Your task to perform on an android device: change the clock display to digital Image 0: 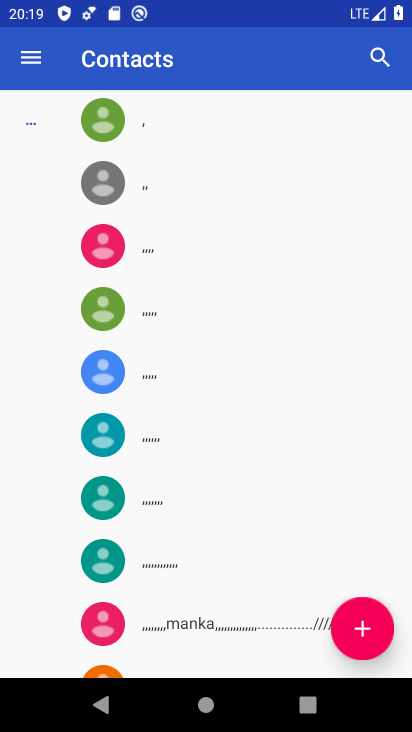
Step 0: press back button
Your task to perform on an android device: change the clock display to digital Image 1: 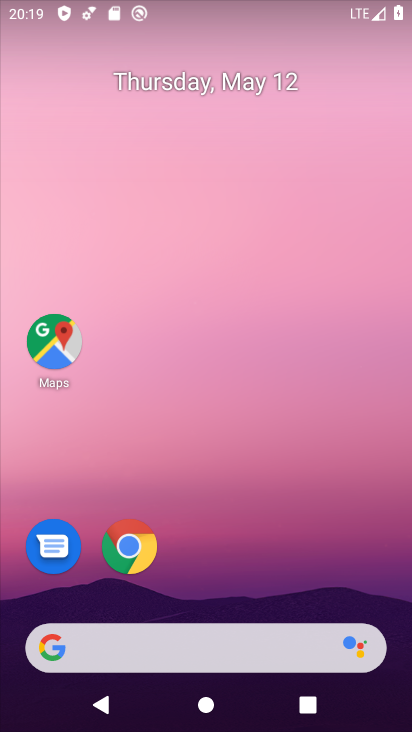
Step 1: drag from (165, 605) to (234, 87)
Your task to perform on an android device: change the clock display to digital Image 2: 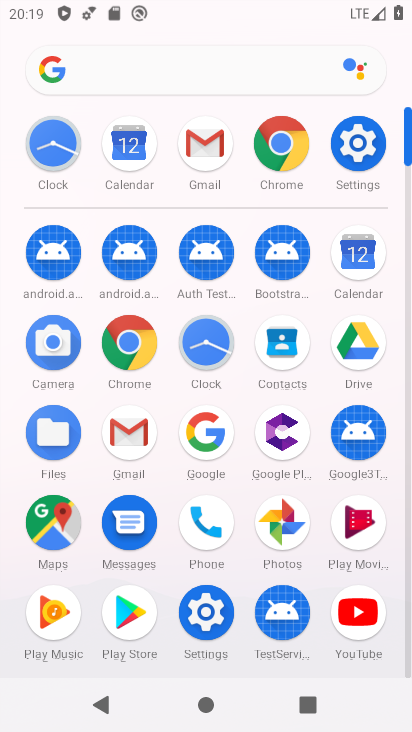
Step 2: click (204, 342)
Your task to perform on an android device: change the clock display to digital Image 3: 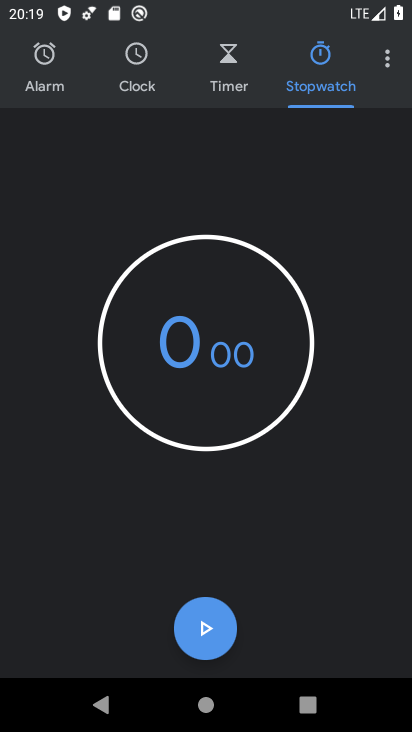
Step 3: click (390, 58)
Your task to perform on an android device: change the clock display to digital Image 4: 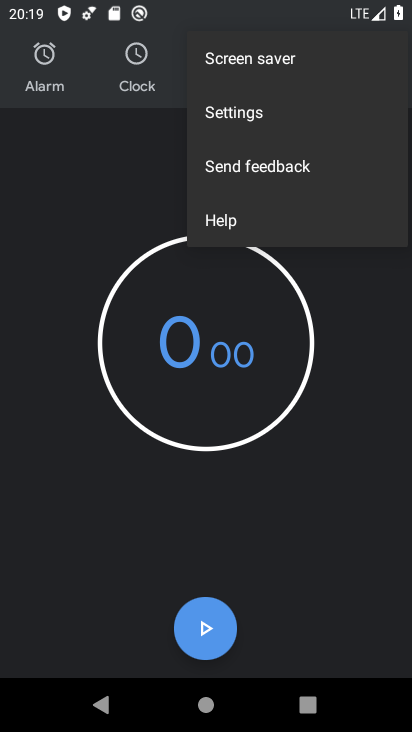
Step 4: click (224, 116)
Your task to perform on an android device: change the clock display to digital Image 5: 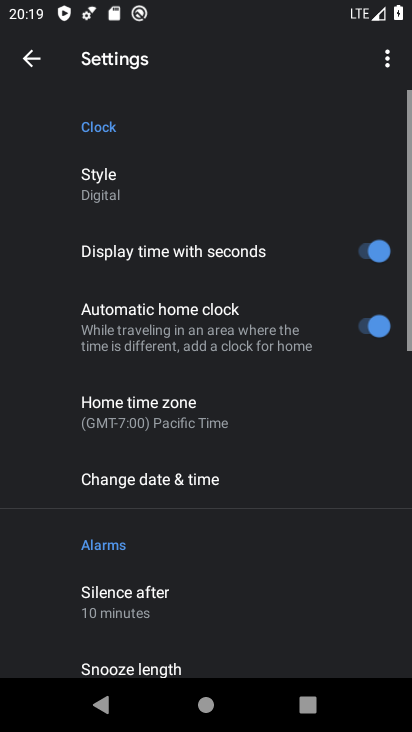
Step 5: click (113, 174)
Your task to perform on an android device: change the clock display to digital Image 6: 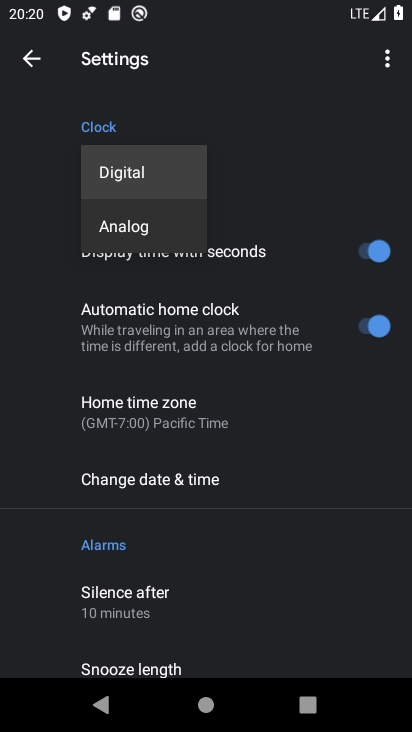
Step 6: click (120, 175)
Your task to perform on an android device: change the clock display to digital Image 7: 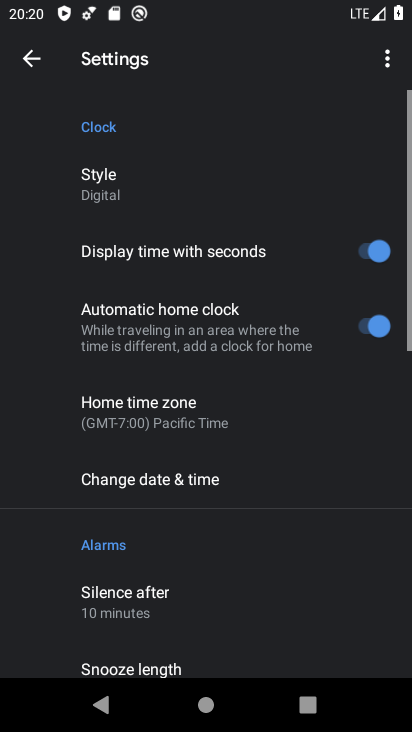
Step 7: task complete